Your task to perform on an android device: Do I have any events this weekend? Image 0: 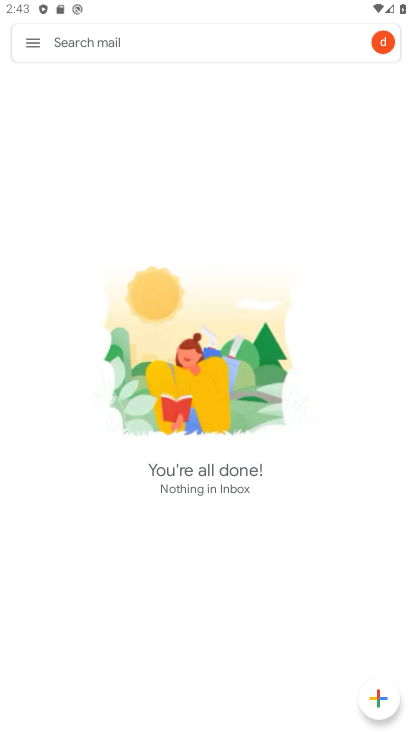
Step 0: press home button
Your task to perform on an android device: Do I have any events this weekend? Image 1: 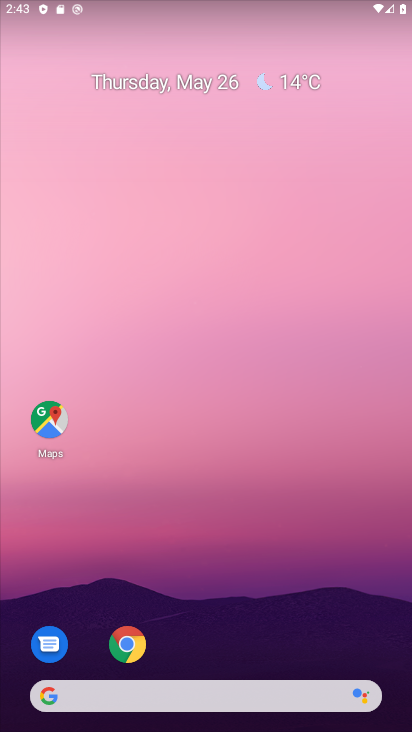
Step 1: drag from (337, 633) to (292, 176)
Your task to perform on an android device: Do I have any events this weekend? Image 2: 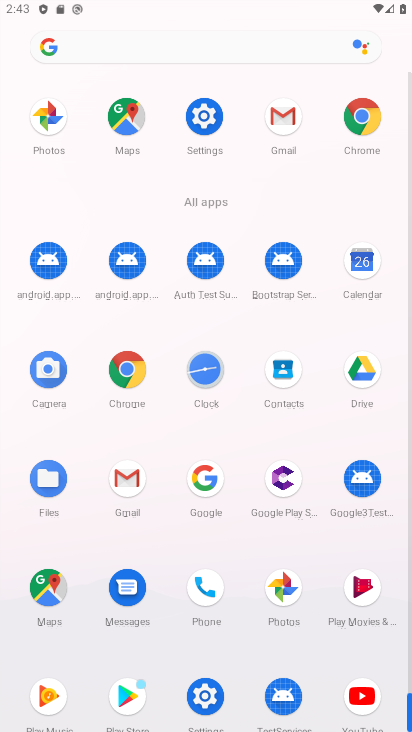
Step 2: press home button
Your task to perform on an android device: Do I have any events this weekend? Image 3: 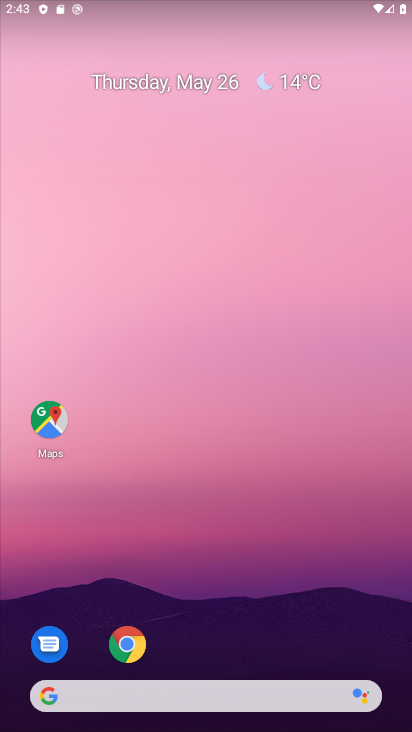
Step 3: drag from (315, 595) to (313, 82)
Your task to perform on an android device: Do I have any events this weekend? Image 4: 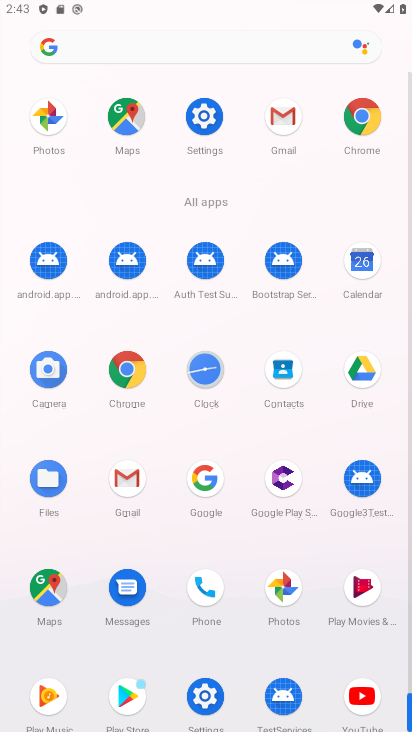
Step 4: click (349, 271)
Your task to perform on an android device: Do I have any events this weekend? Image 5: 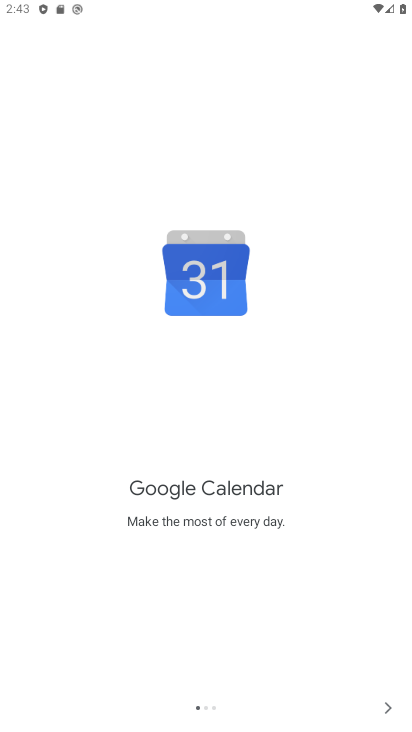
Step 5: click (387, 719)
Your task to perform on an android device: Do I have any events this weekend? Image 6: 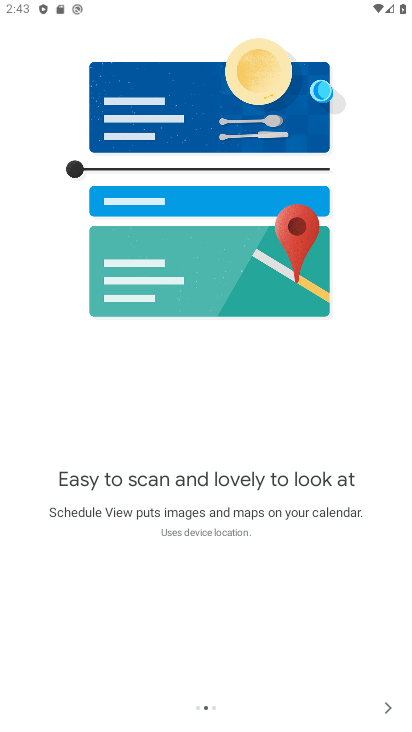
Step 6: click (389, 716)
Your task to perform on an android device: Do I have any events this weekend? Image 7: 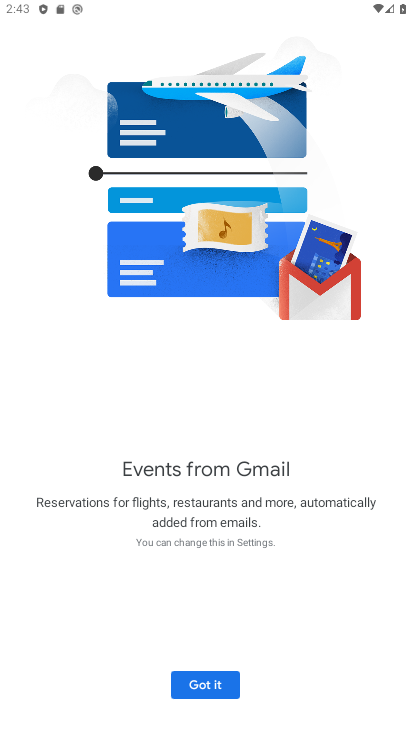
Step 7: click (214, 681)
Your task to perform on an android device: Do I have any events this weekend? Image 8: 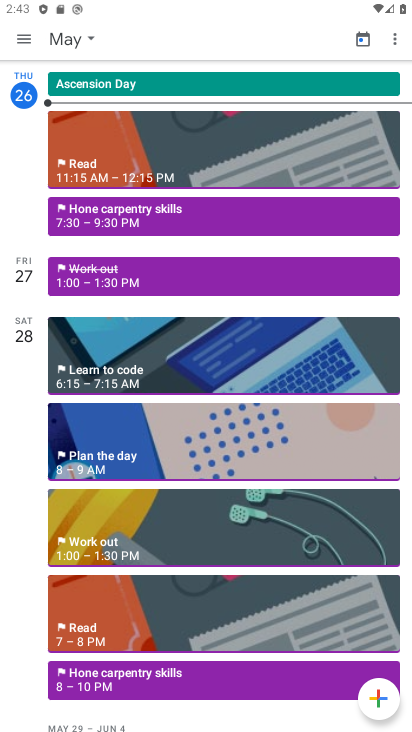
Step 8: task complete